Your task to perform on an android device: Search for Mexican restaurants on Maps Image 0: 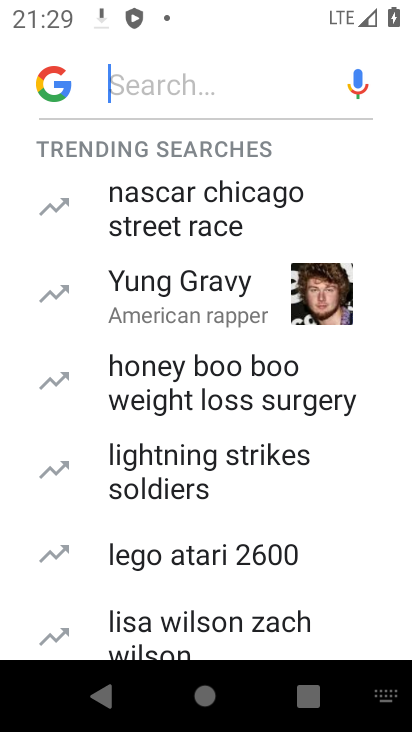
Step 0: press back button
Your task to perform on an android device: Search for Mexican restaurants on Maps Image 1: 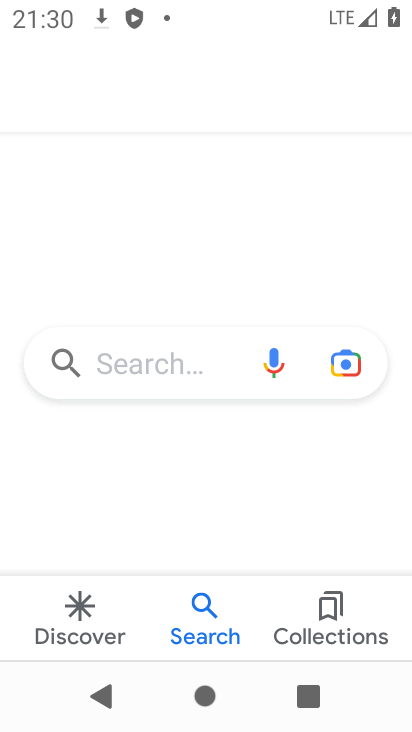
Step 1: press back button
Your task to perform on an android device: Search for Mexican restaurants on Maps Image 2: 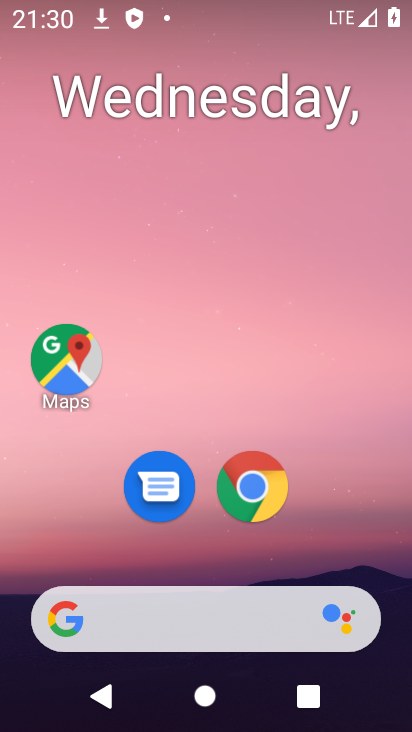
Step 2: click (79, 353)
Your task to perform on an android device: Search for Mexican restaurants on Maps Image 3: 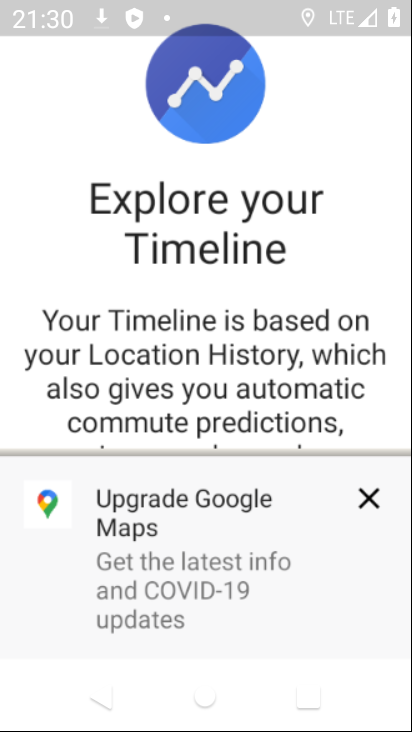
Step 3: click (361, 485)
Your task to perform on an android device: Search for Mexican restaurants on Maps Image 4: 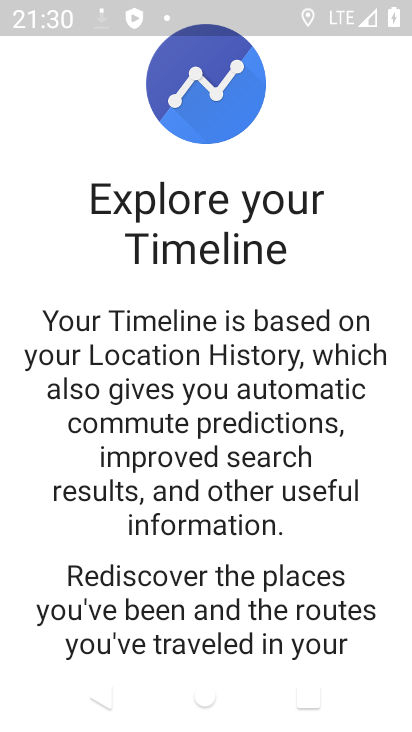
Step 4: drag from (175, 589) to (247, 77)
Your task to perform on an android device: Search for Mexican restaurants on Maps Image 5: 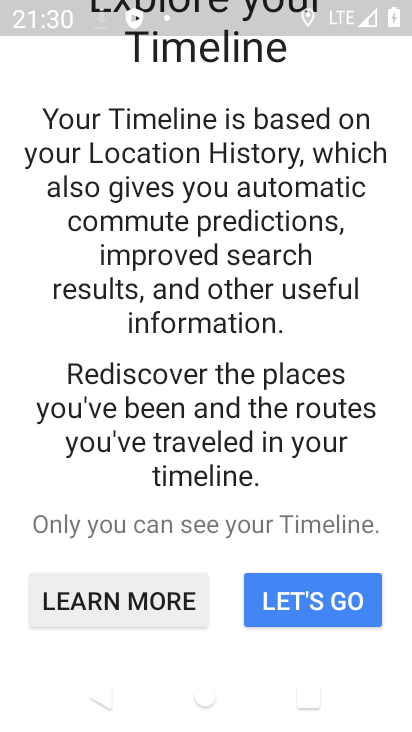
Step 5: click (288, 610)
Your task to perform on an android device: Search for Mexican restaurants on Maps Image 6: 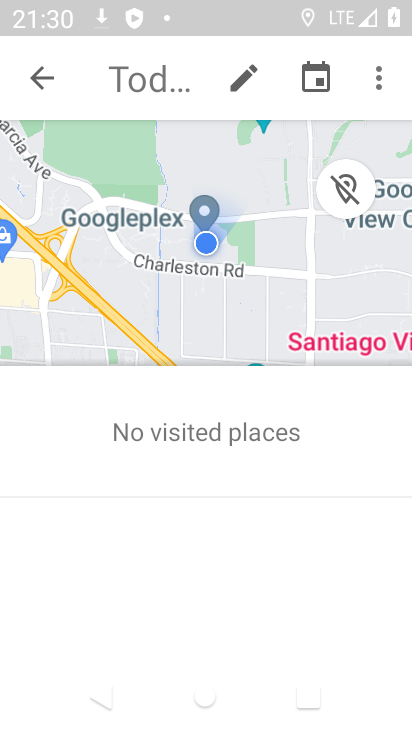
Step 6: click (48, 73)
Your task to perform on an android device: Search for Mexican restaurants on Maps Image 7: 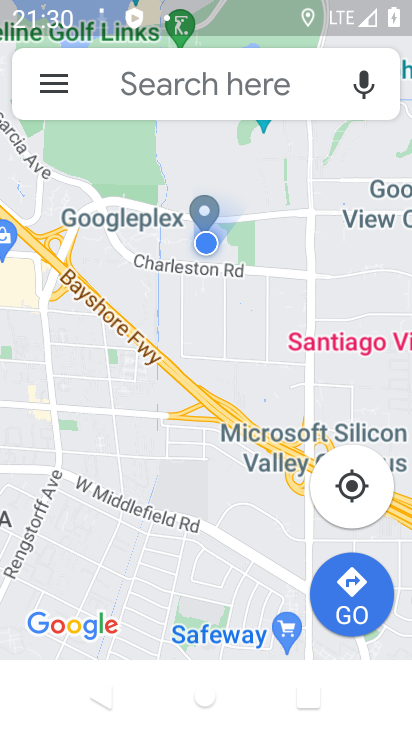
Step 7: click (208, 90)
Your task to perform on an android device: Search for Mexican restaurants on Maps Image 8: 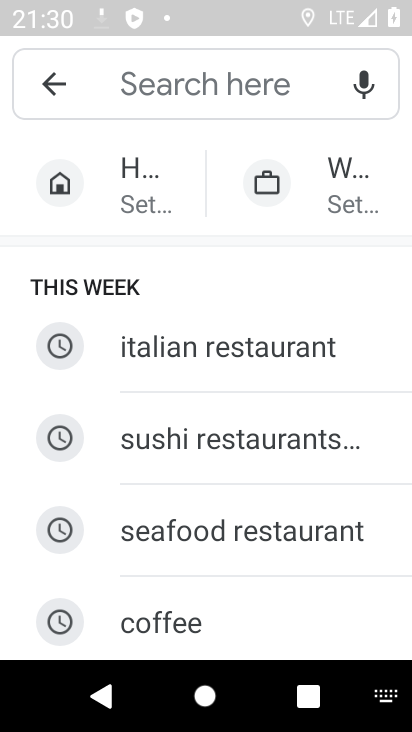
Step 8: drag from (195, 578) to (308, 145)
Your task to perform on an android device: Search for Mexican restaurants on Maps Image 9: 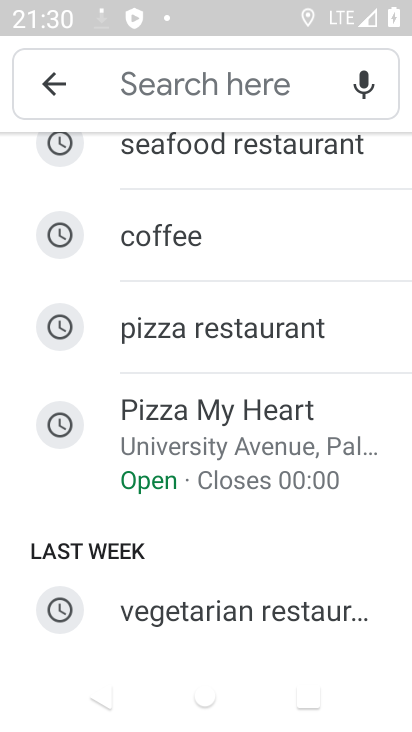
Step 9: drag from (232, 589) to (268, 722)
Your task to perform on an android device: Search for Mexican restaurants on Maps Image 10: 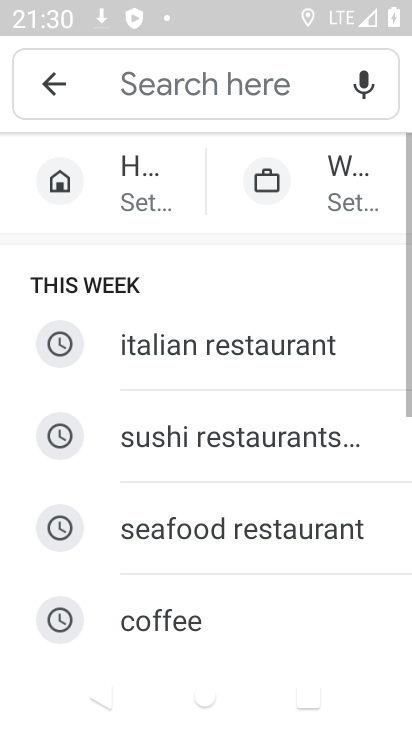
Step 10: click (158, 90)
Your task to perform on an android device: Search for Mexican restaurants on Maps Image 11: 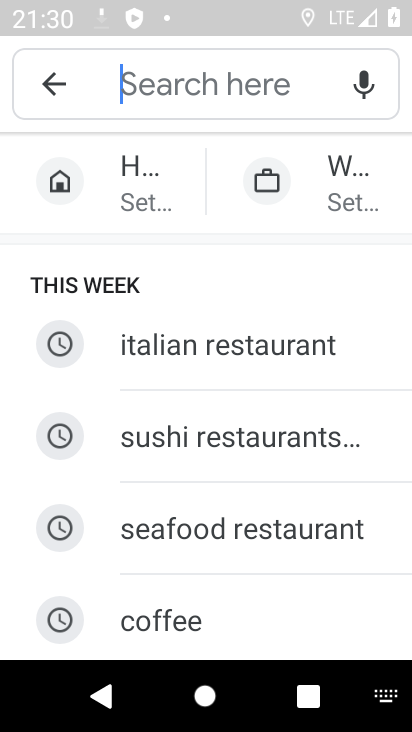
Step 11: type "mexican restaurants"
Your task to perform on an android device: Search for Mexican restaurants on Maps Image 12: 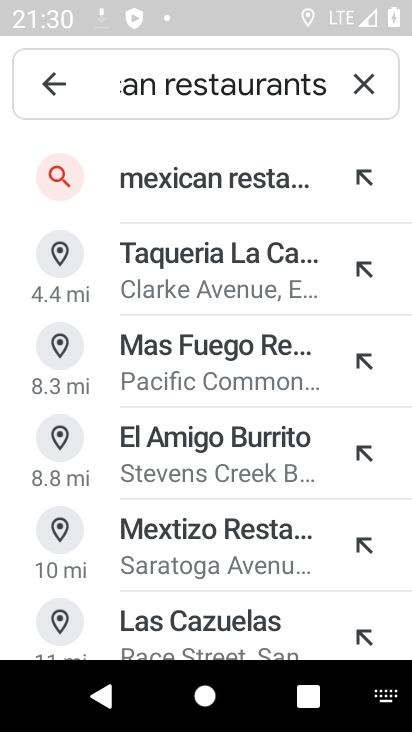
Step 12: click (159, 172)
Your task to perform on an android device: Search for Mexican restaurants on Maps Image 13: 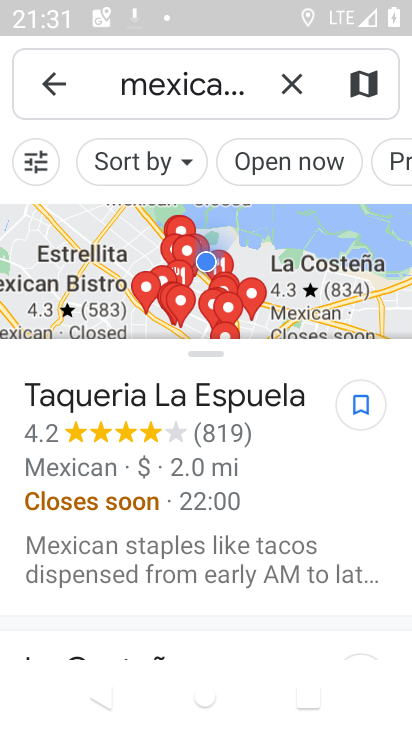
Step 13: task complete